Your task to perform on an android device: set default search engine in the chrome app Image 0: 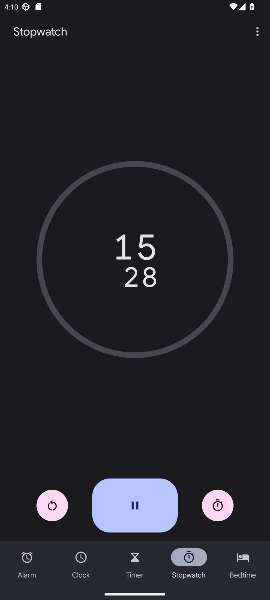
Step 0: click (137, 505)
Your task to perform on an android device: set default search engine in the chrome app Image 1: 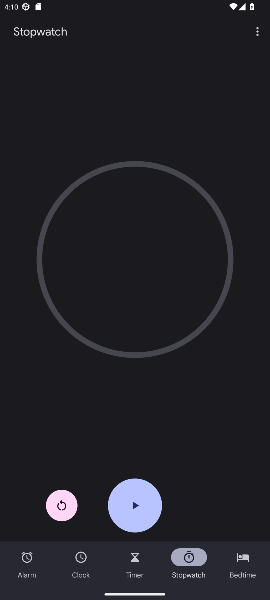
Step 1: press home button
Your task to perform on an android device: set default search engine in the chrome app Image 2: 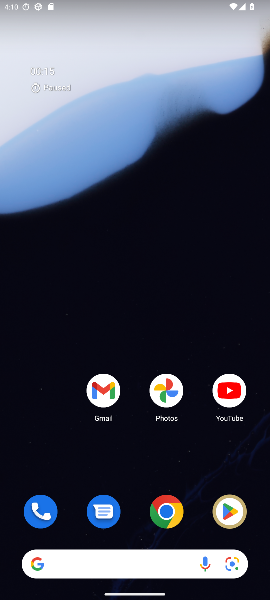
Step 2: click (169, 505)
Your task to perform on an android device: set default search engine in the chrome app Image 3: 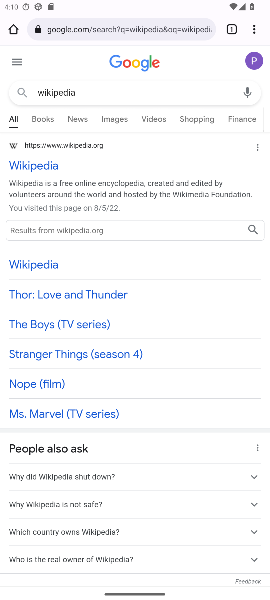
Step 3: click (253, 30)
Your task to perform on an android device: set default search engine in the chrome app Image 4: 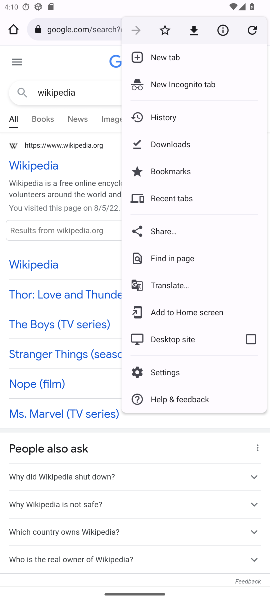
Step 4: click (169, 373)
Your task to perform on an android device: set default search engine in the chrome app Image 5: 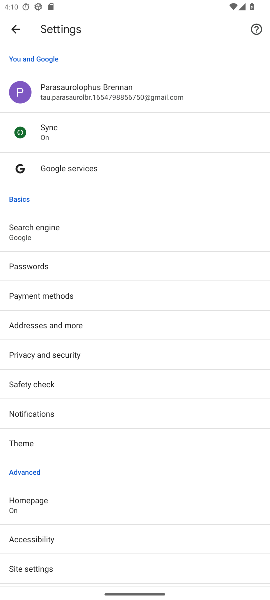
Step 5: click (71, 232)
Your task to perform on an android device: set default search engine in the chrome app Image 6: 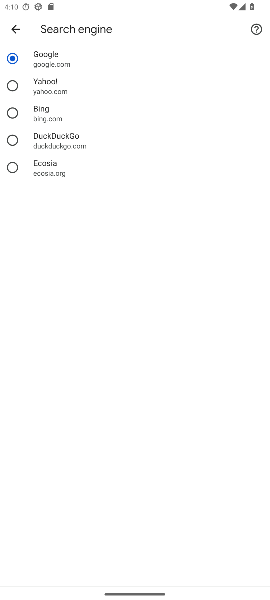
Step 6: click (43, 57)
Your task to perform on an android device: set default search engine in the chrome app Image 7: 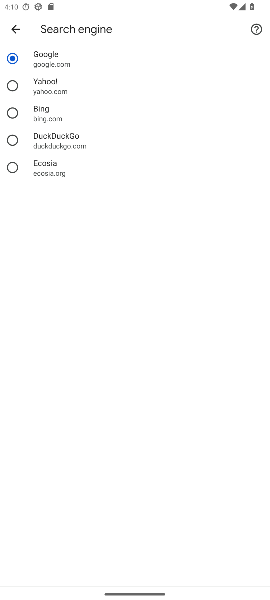
Step 7: task complete